Your task to perform on an android device: Open Chrome and go to settings Image 0: 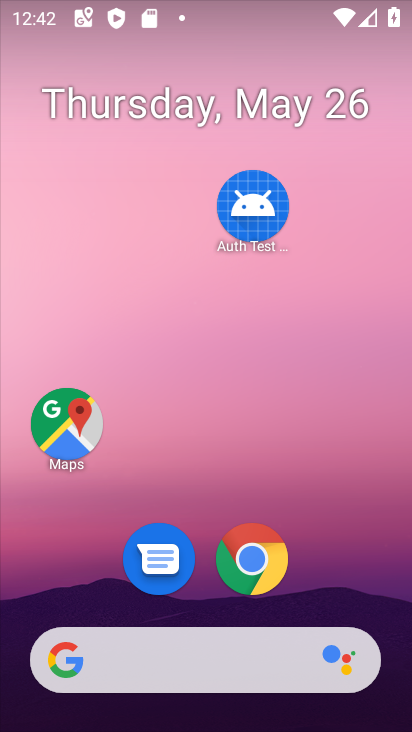
Step 0: drag from (354, 309) to (366, 208)
Your task to perform on an android device: Open Chrome and go to settings Image 1: 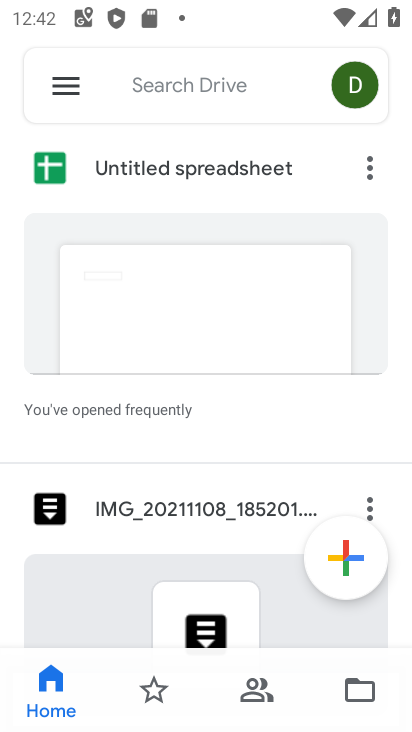
Step 1: press home button
Your task to perform on an android device: Open Chrome and go to settings Image 2: 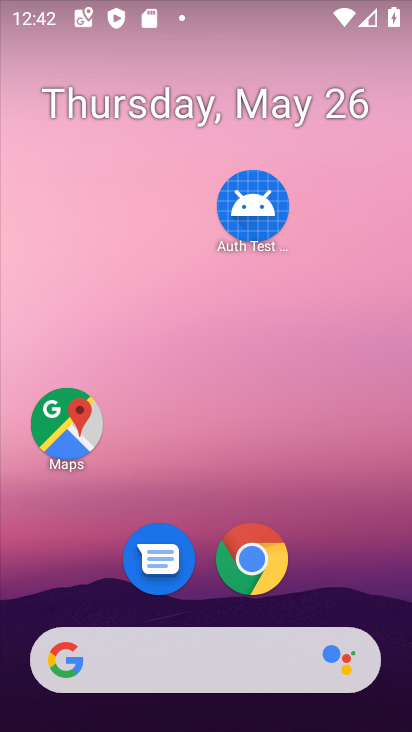
Step 2: drag from (341, 629) to (355, 92)
Your task to perform on an android device: Open Chrome and go to settings Image 3: 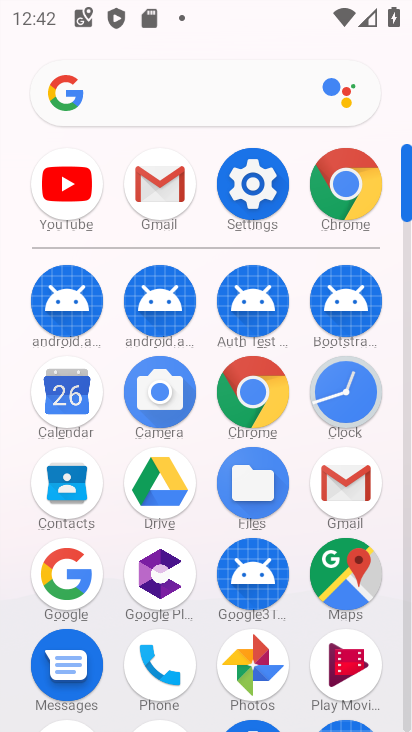
Step 3: click (341, 208)
Your task to perform on an android device: Open Chrome and go to settings Image 4: 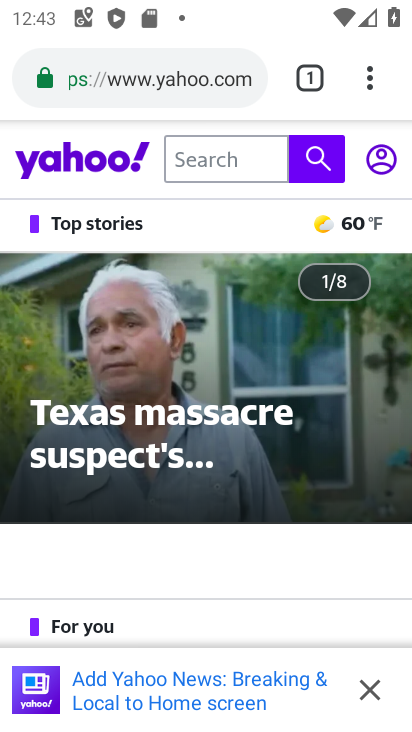
Step 4: click (373, 81)
Your task to perform on an android device: Open Chrome and go to settings Image 5: 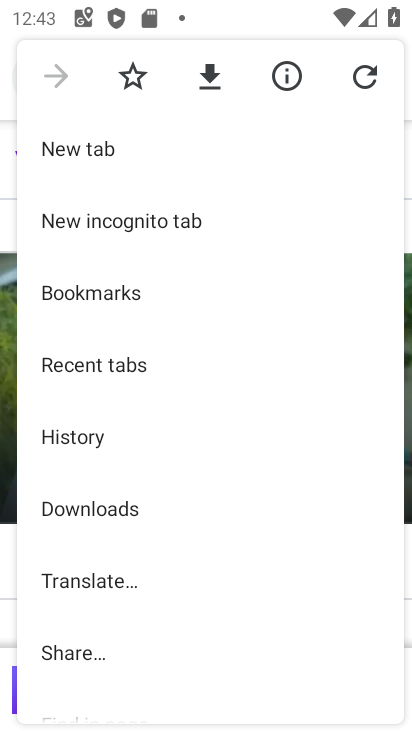
Step 5: drag from (159, 591) to (157, 219)
Your task to perform on an android device: Open Chrome and go to settings Image 6: 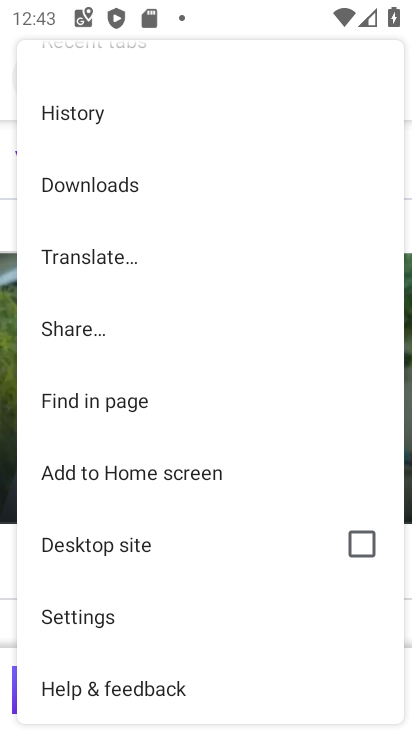
Step 6: click (118, 626)
Your task to perform on an android device: Open Chrome and go to settings Image 7: 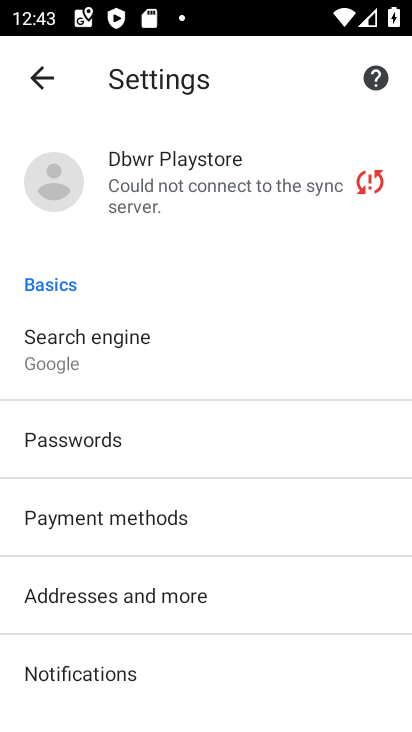
Step 7: task complete